Your task to perform on an android device: Open the Play Movies app and select the watchlist tab. Image 0: 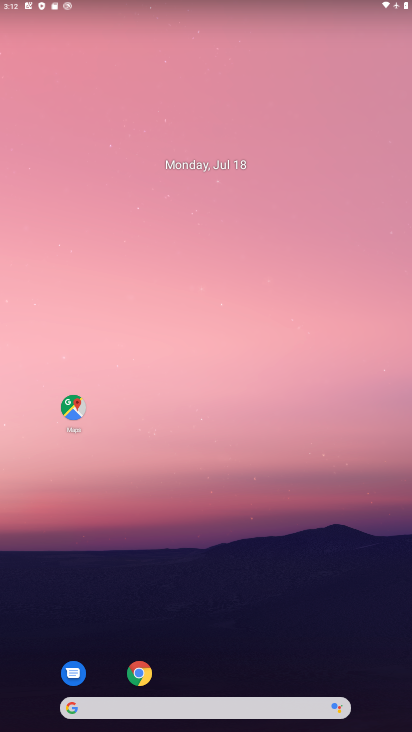
Step 0: drag from (180, 671) to (223, 325)
Your task to perform on an android device: Open the Play Movies app and select the watchlist tab. Image 1: 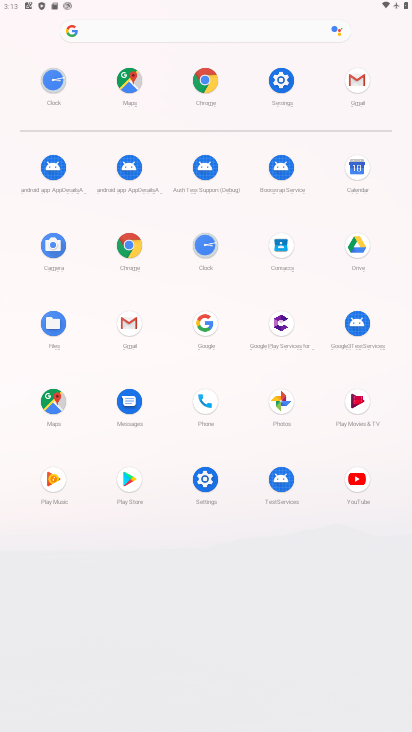
Step 1: click (354, 402)
Your task to perform on an android device: Open the Play Movies app and select the watchlist tab. Image 2: 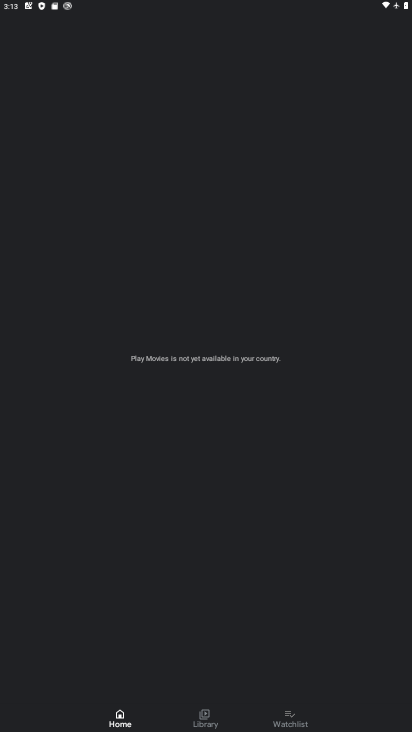
Step 2: click (302, 712)
Your task to perform on an android device: Open the Play Movies app and select the watchlist tab. Image 3: 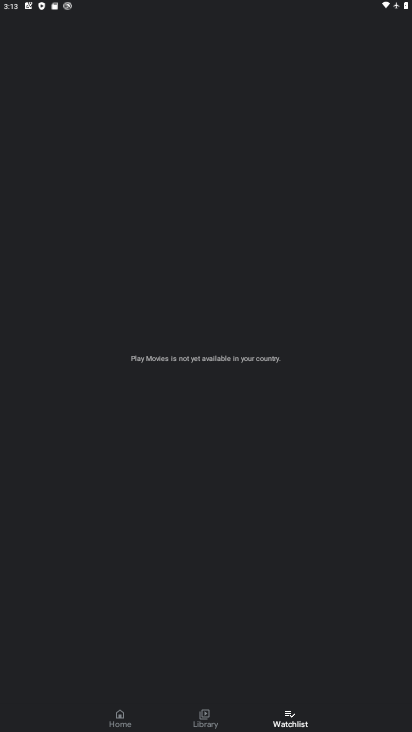
Step 3: task complete